Your task to perform on an android device: What is the recent news? Image 0: 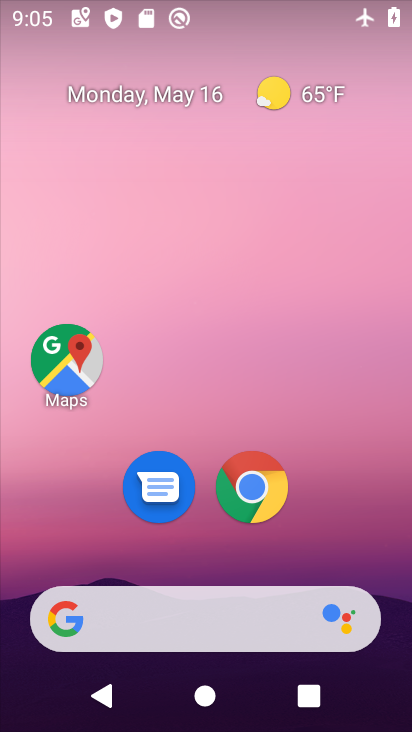
Step 0: drag from (23, 261) to (403, 306)
Your task to perform on an android device: What is the recent news? Image 1: 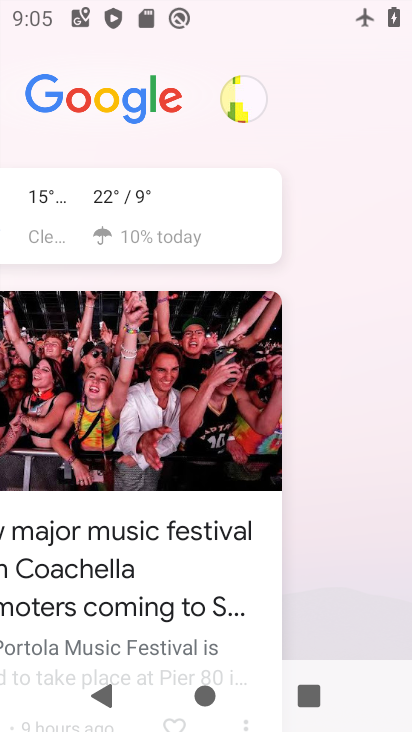
Step 1: task complete